Your task to perform on an android device: open a new tab in the chrome app Image 0: 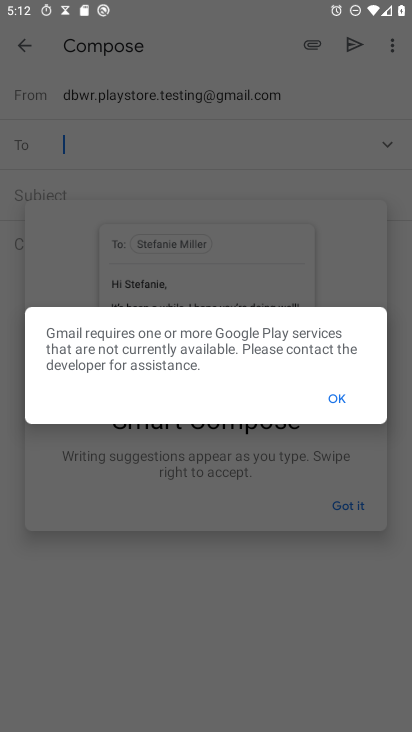
Step 0: press home button
Your task to perform on an android device: open a new tab in the chrome app Image 1: 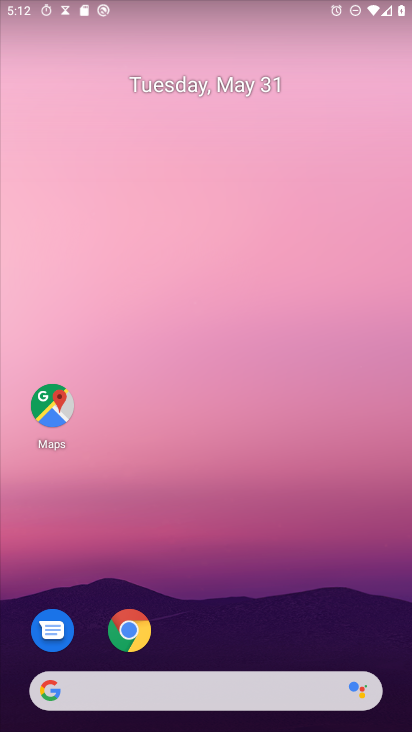
Step 1: drag from (324, 195) to (328, 14)
Your task to perform on an android device: open a new tab in the chrome app Image 2: 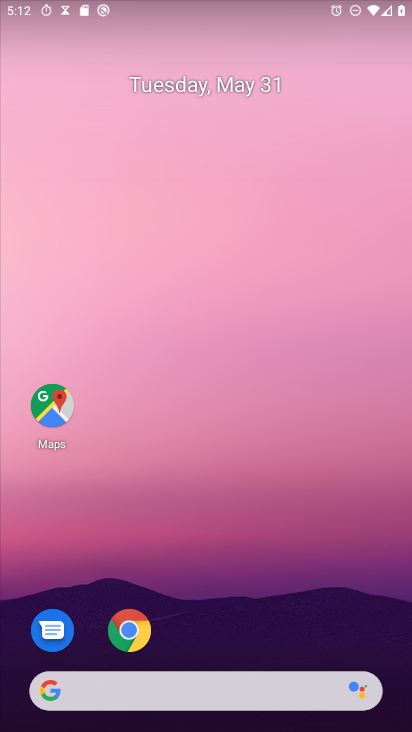
Step 2: drag from (282, 684) to (305, 6)
Your task to perform on an android device: open a new tab in the chrome app Image 3: 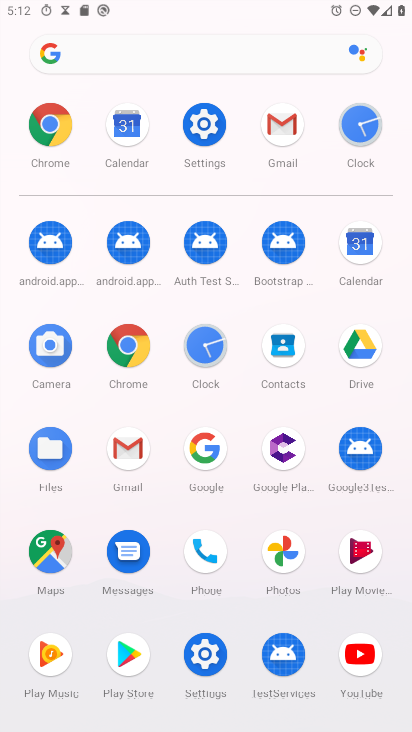
Step 3: click (140, 342)
Your task to perform on an android device: open a new tab in the chrome app Image 4: 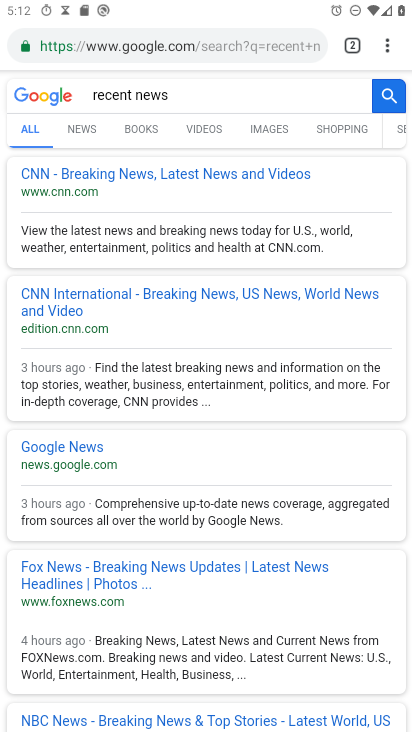
Step 4: task complete